Your task to perform on an android device: turn on airplane mode Image 0: 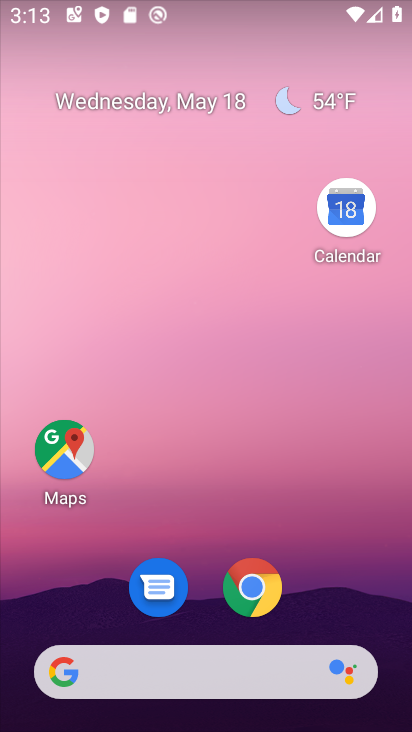
Step 0: drag from (206, 626) to (256, 168)
Your task to perform on an android device: turn on airplane mode Image 1: 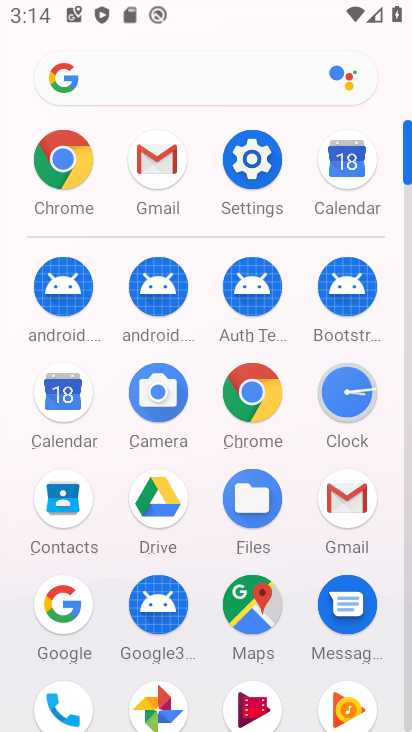
Step 1: click (259, 171)
Your task to perform on an android device: turn on airplane mode Image 2: 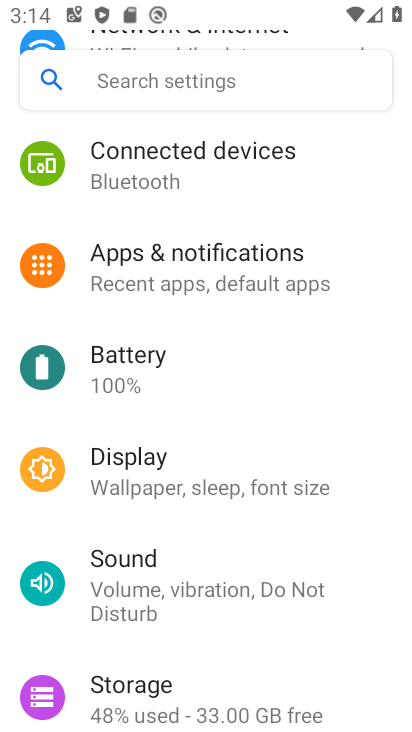
Step 2: drag from (206, 241) to (259, 730)
Your task to perform on an android device: turn on airplane mode Image 3: 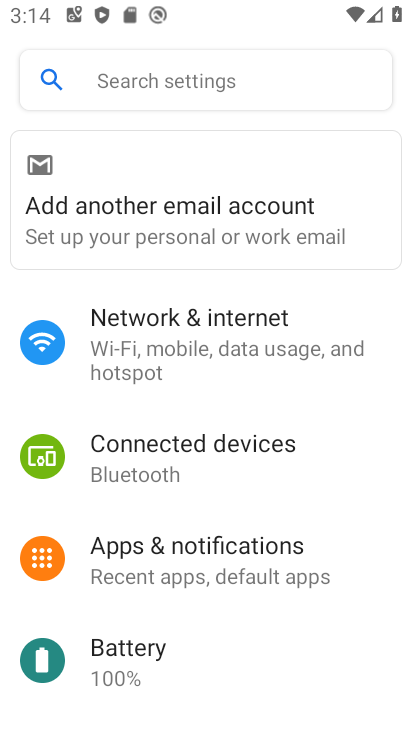
Step 3: click (173, 334)
Your task to perform on an android device: turn on airplane mode Image 4: 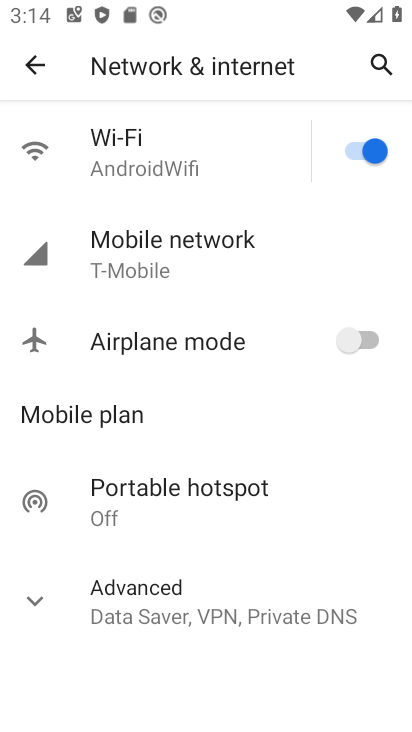
Step 4: click (219, 344)
Your task to perform on an android device: turn on airplane mode Image 5: 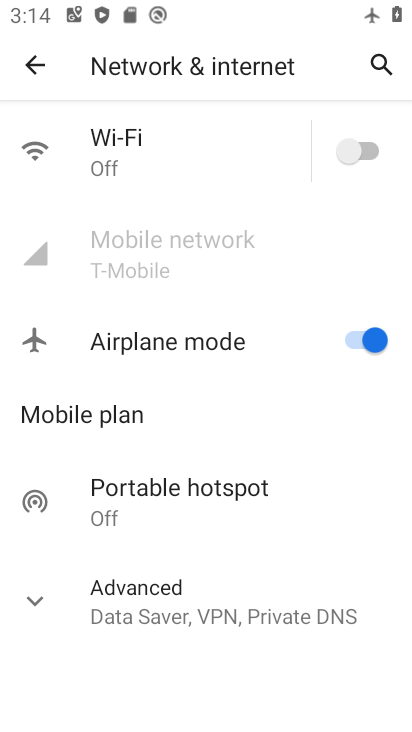
Step 5: task complete